Your task to perform on an android device: stop showing notifications on the lock screen Image 0: 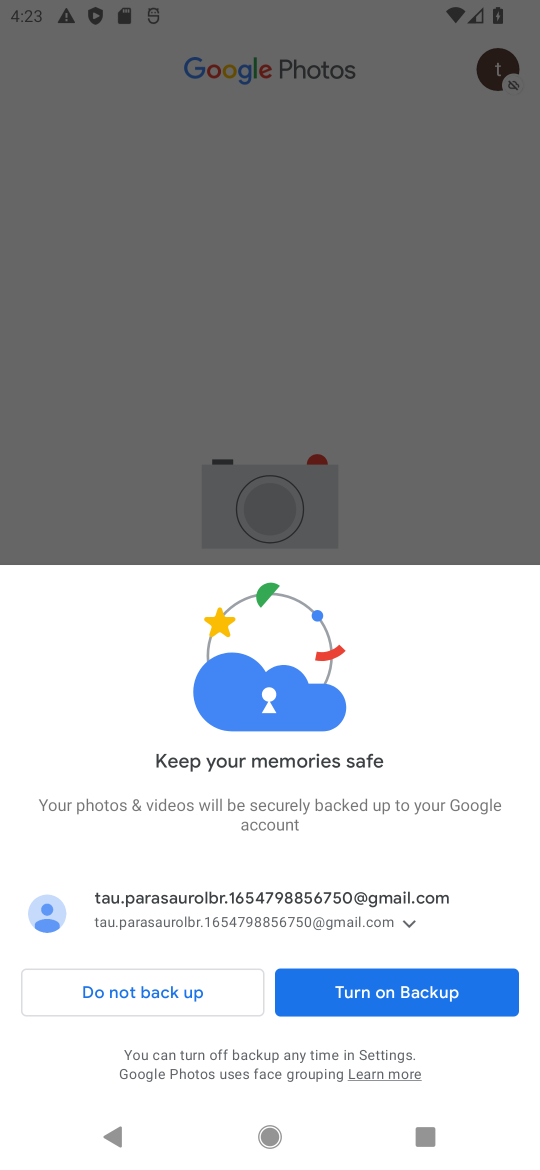
Step 0: press home button
Your task to perform on an android device: stop showing notifications on the lock screen Image 1: 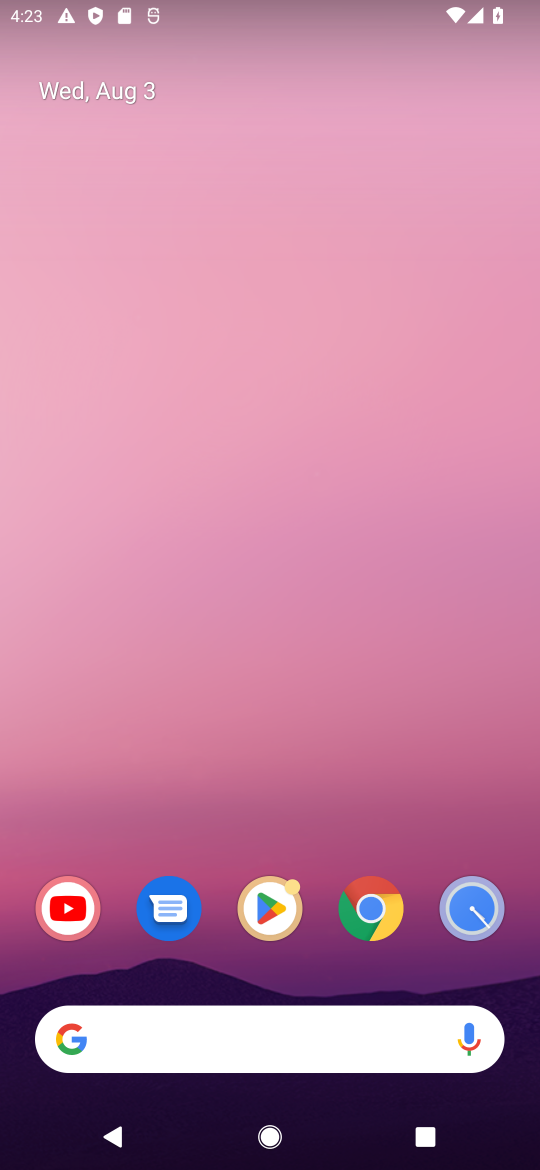
Step 1: drag from (205, 770) to (296, 28)
Your task to perform on an android device: stop showing notifications on the lock screen Image 2: 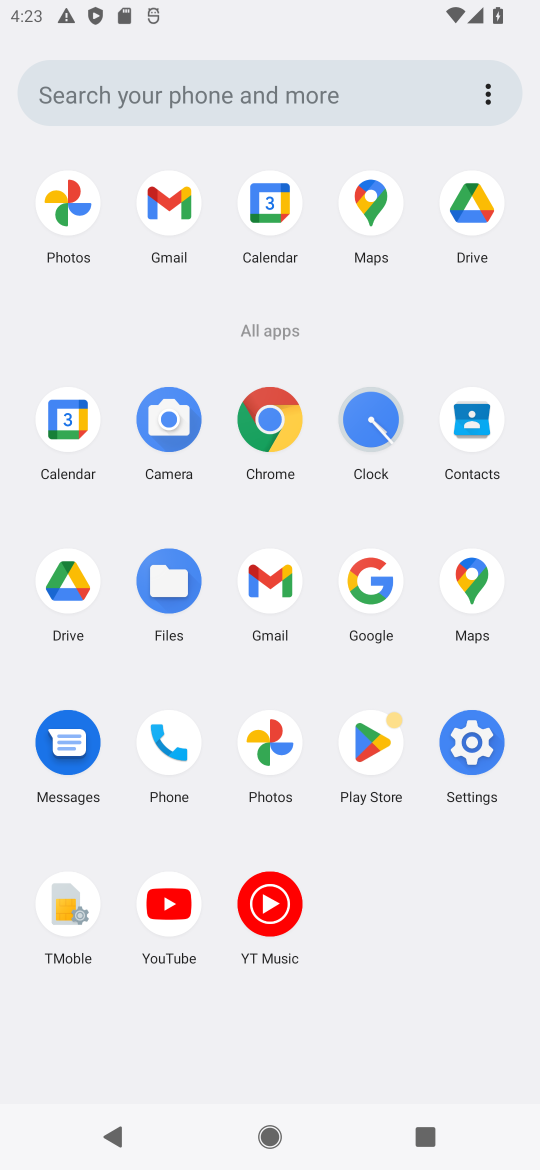
Step 2: click (461, 733)
Your task to perform on an android device: stop showing notifications on the lock screen Image 3: 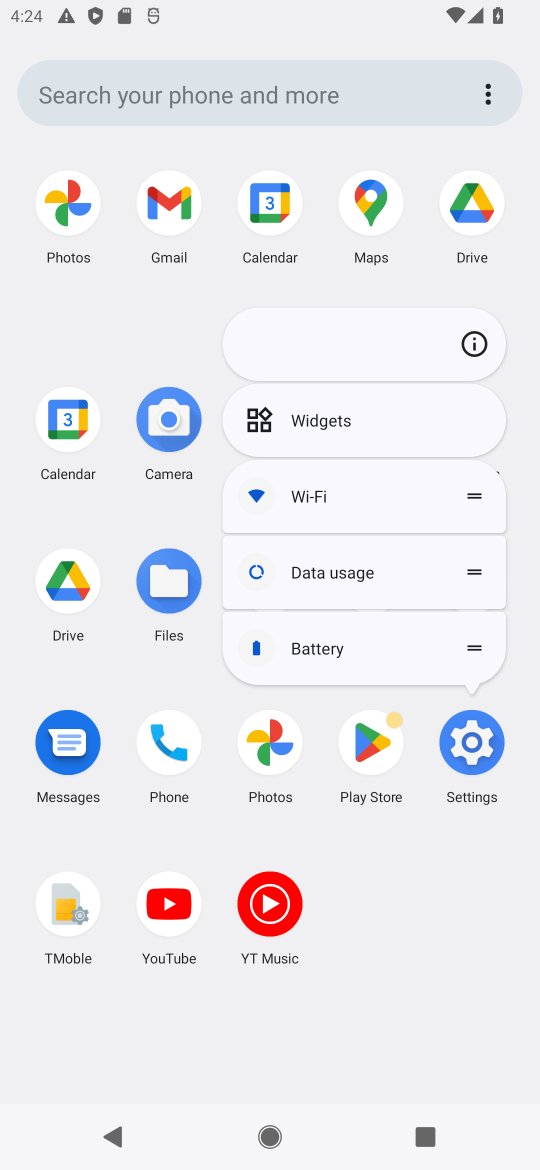
Step 3: click (461, 733)
Your task to perform on an android device: stop showing notifications on the lock screen Image 4: 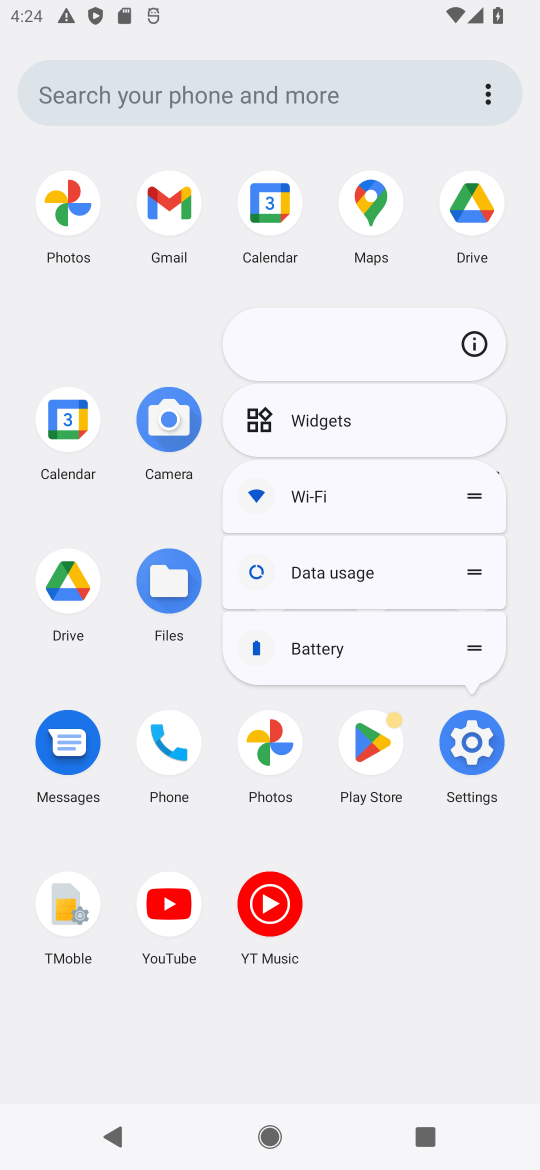
Step 4: click (461, 733)
Your task to perform on an android device: stop showing notifications on the lock screen Image 5: 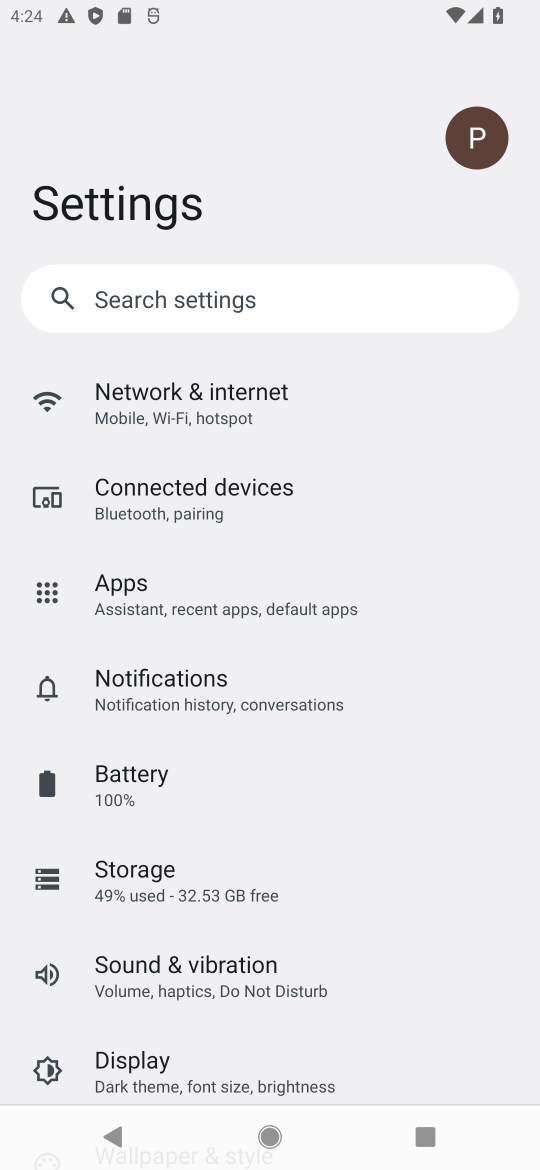
Step 5: drag from (324, 1031) to (435, 65)
Your task to perform on an android device: stop showing notifications on the lock screen Image 6: 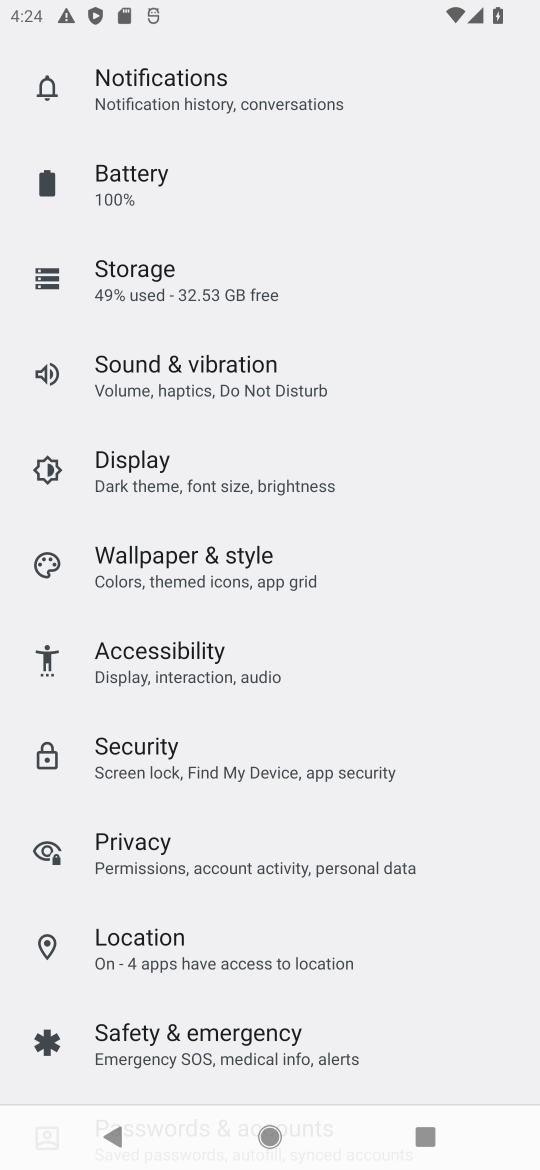
Step 6: drag from (264, 1057) to (287, 47)
Your task to perform on an android device: stop showing notifications on the lock screen Image 7: 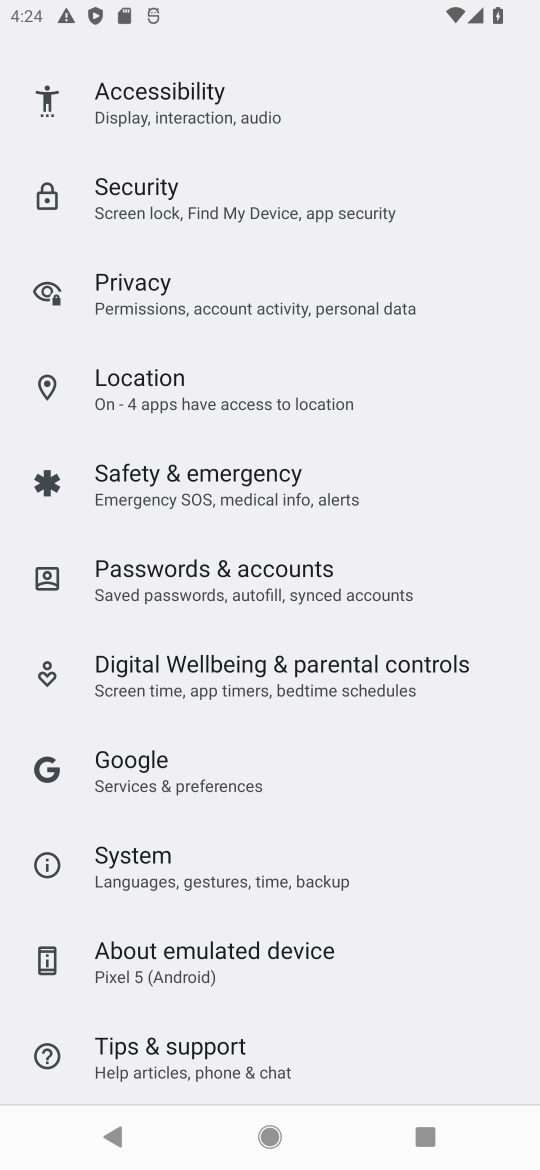
Step 7: drag from (370, 1048) to (449, 6)
Your task to perform on an android device: stop showing notifications on the lock screen Image 8: 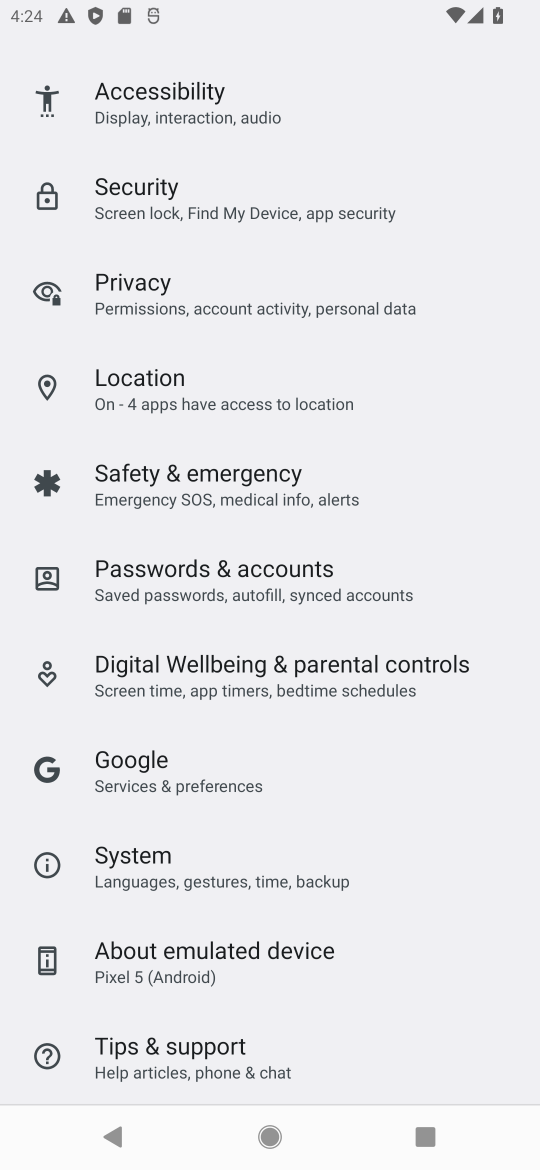
Step 8: drag from (250, 919) to (242, 20)
Your task to perform on an android device: stop showing notifications on the lock screen Image 9: 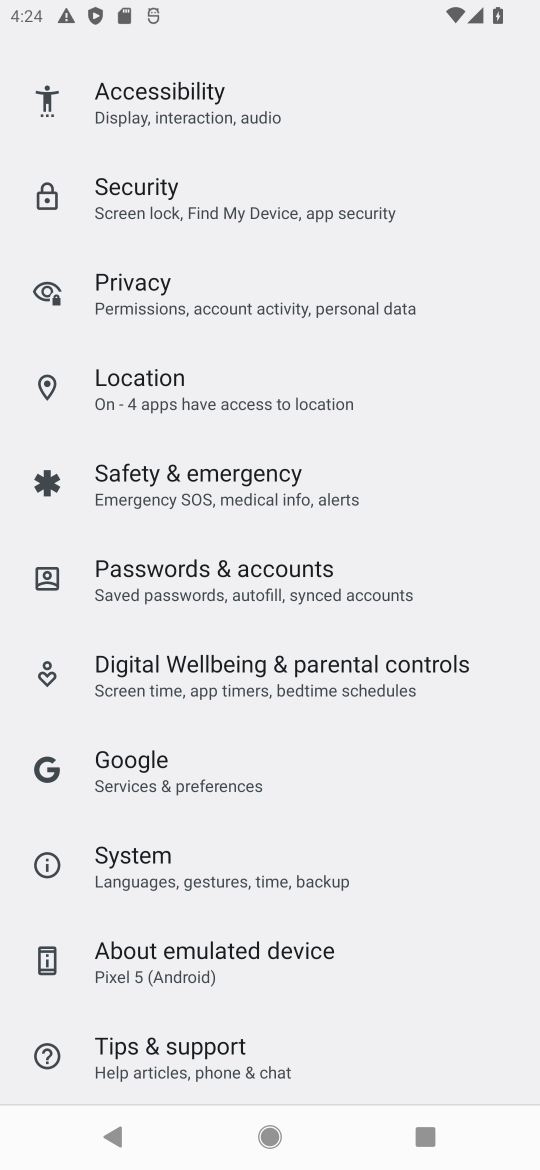
Step 9: drag from (267, 989) to (251, 53)
Your task to perform on an android device: stop showing notifications on the lock screen Image 10: 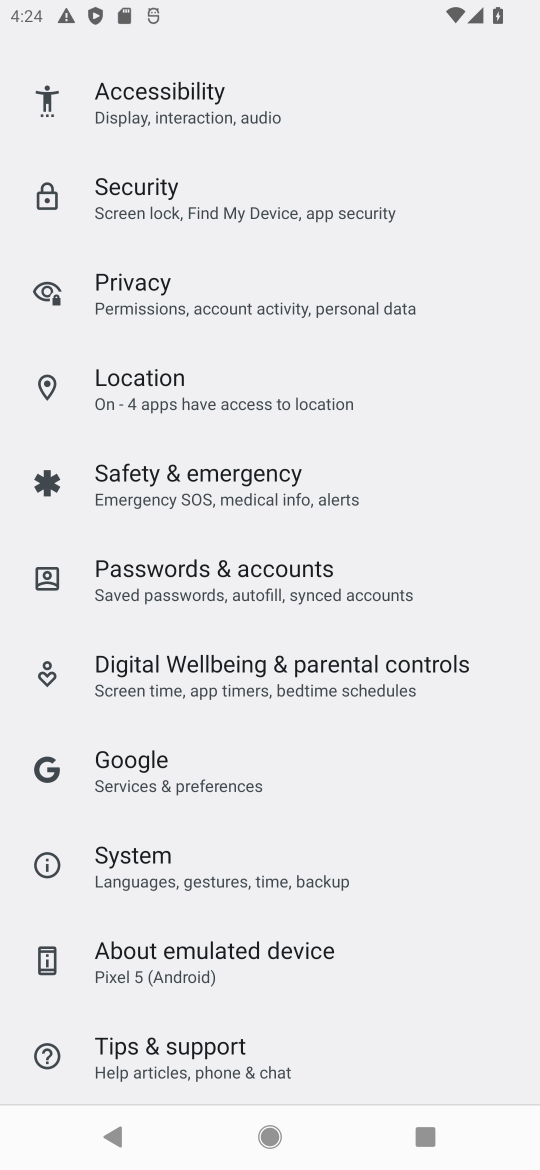
Step 10: drag from (416, 138) to (259, 1130)
Your task to perform on an android device: stop showing notifications on the lock screen Image 11: 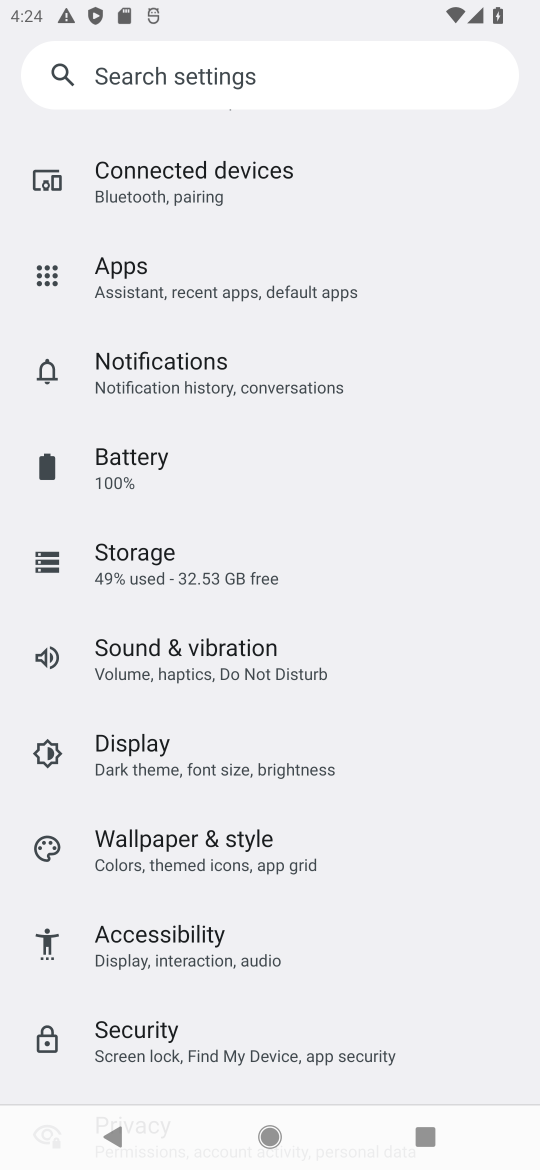
Step 11: drag from (423, 392) to (418, 1080)
Your task to perform on an android device: stop showing notifications on the lock screen Image 12: 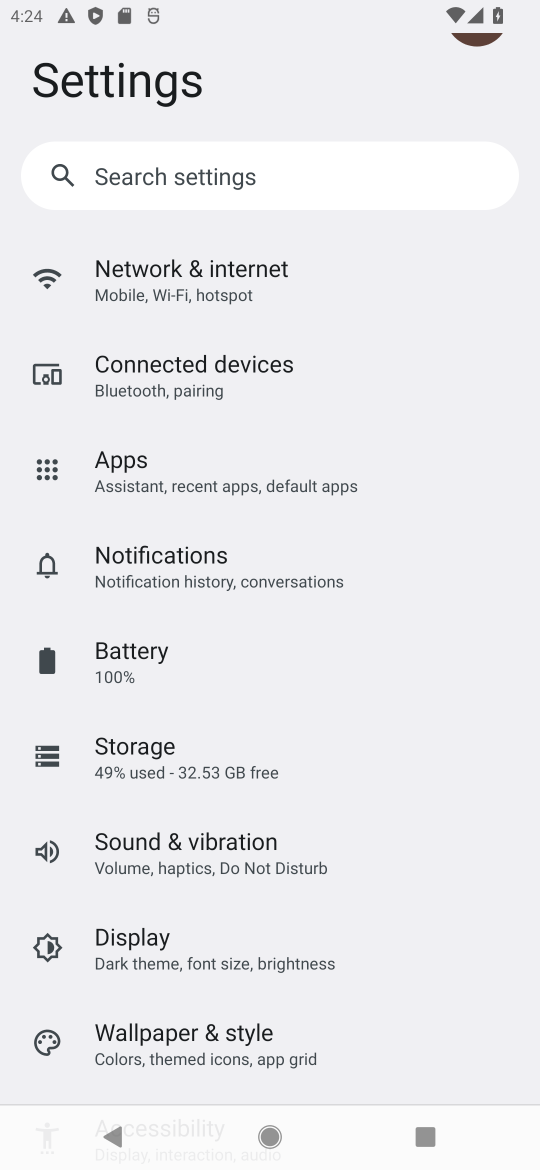
Step 12: click (274, 569)
Your task to perform on an android device: stop showing notifications on the lock screen Image 13: 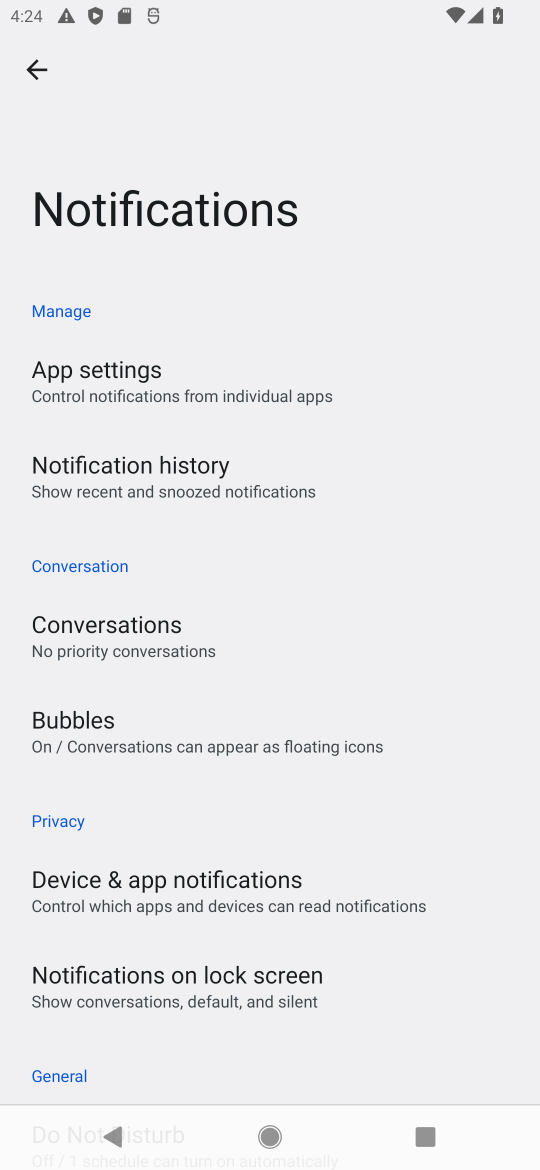
Step 13: click (259, 988)
Your task to perform on an android device: stop showing notifications on the lock screen Image 14: 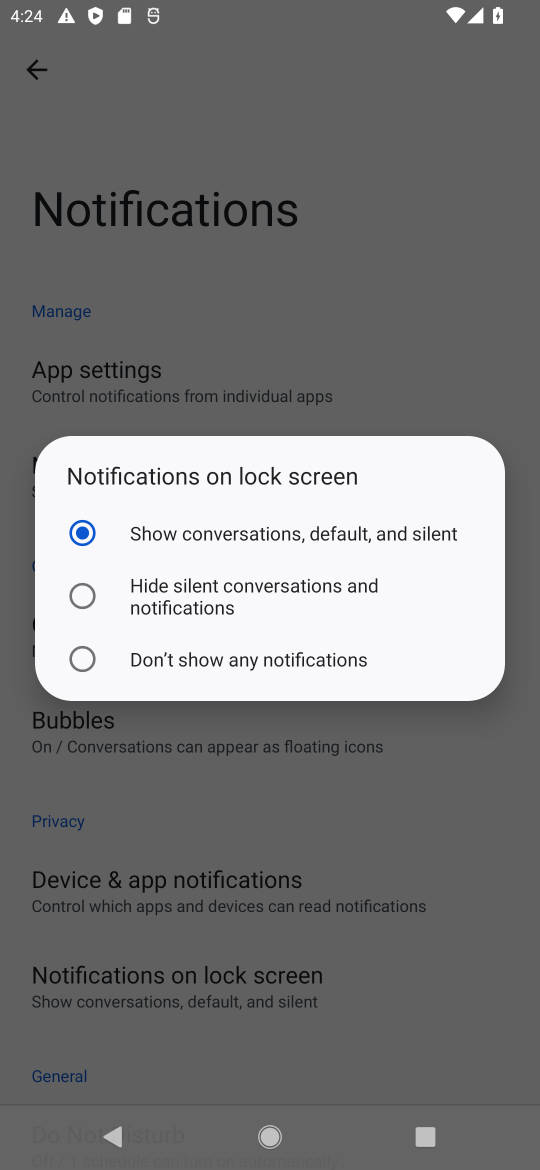
Step 14: click (89, 666)
Your task to perform on an android device: stop showing notifications on the lock screen Image 15: 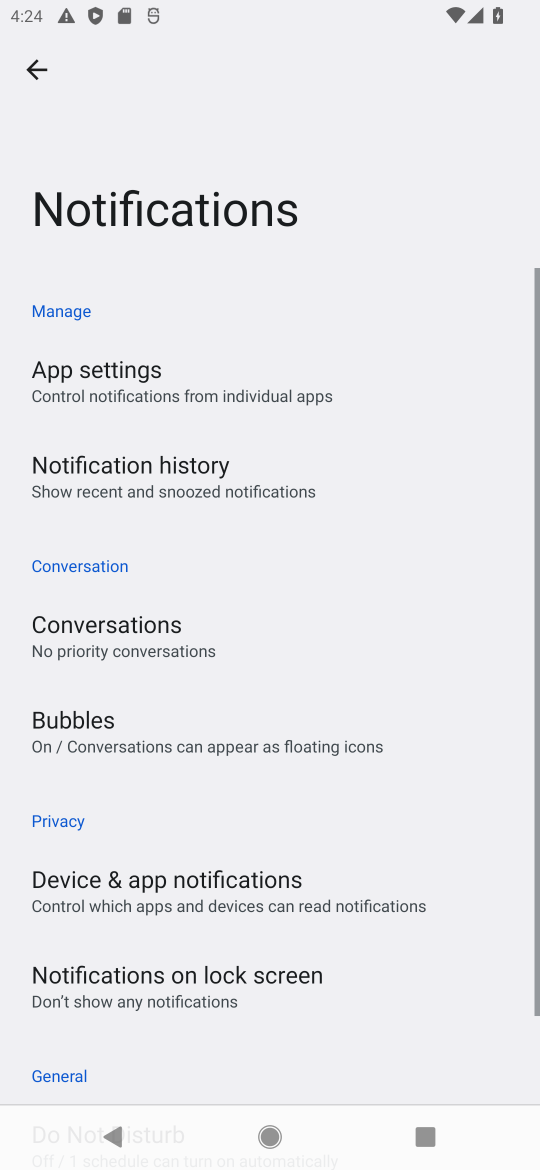
Step 15: task complete